Your task to perform on an android device: Open Google Maps Image 0: 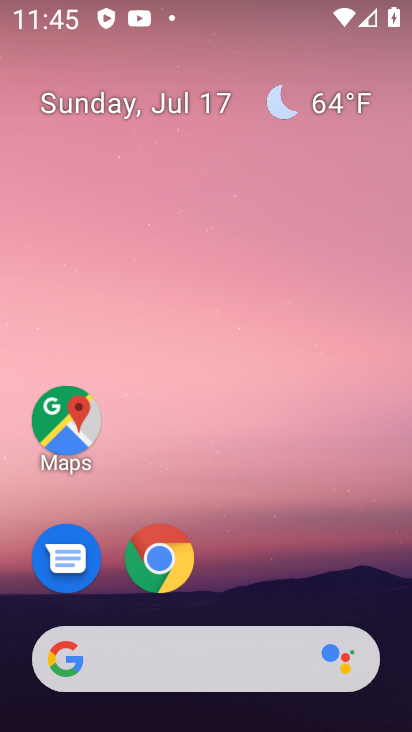
Step 0: drag from (339, 588) to (351, 79)
Your task to perform on an android device: Open Google Maps Image 1: 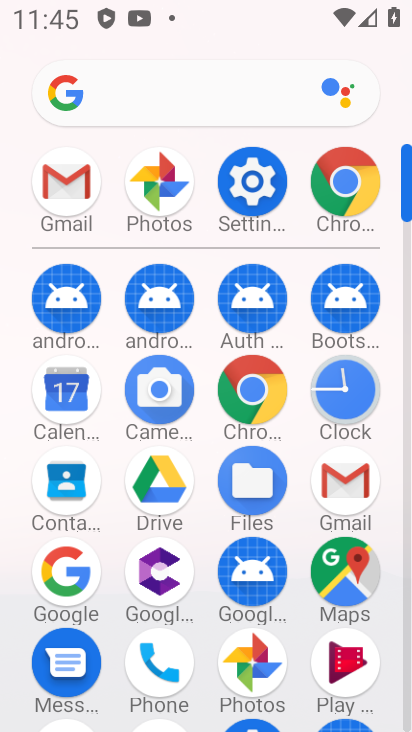
Step 1: click (338, 573)
Your task to perform on an android device: Open Google Maps Image 2: 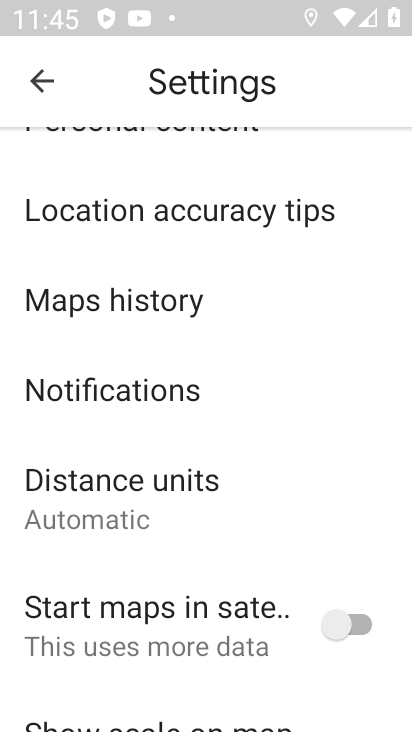
Step 2: task complete